Your task to perform on an android device: turn off location Image 0: 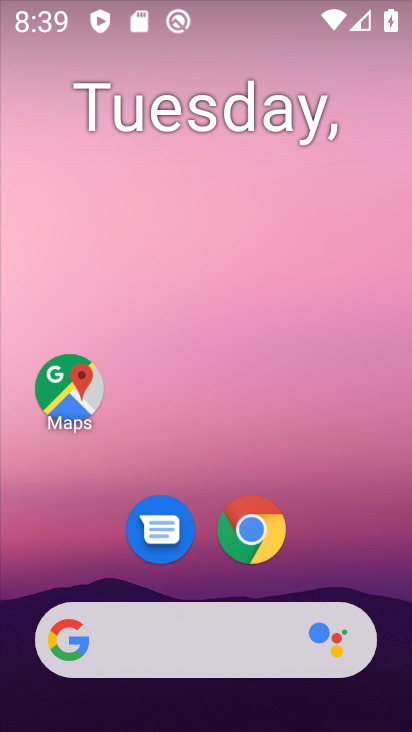
Step 0: drag from (371, 572) to (300, 86)
Your task to perform on an android device: turn off location Image 1: 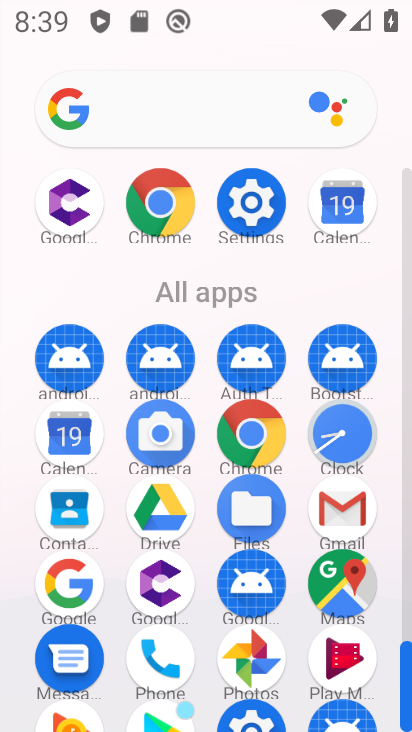
Step 1: drag from (391, 627) to (401, 375)
Your task to perform on an android device: turn off location Image 2: 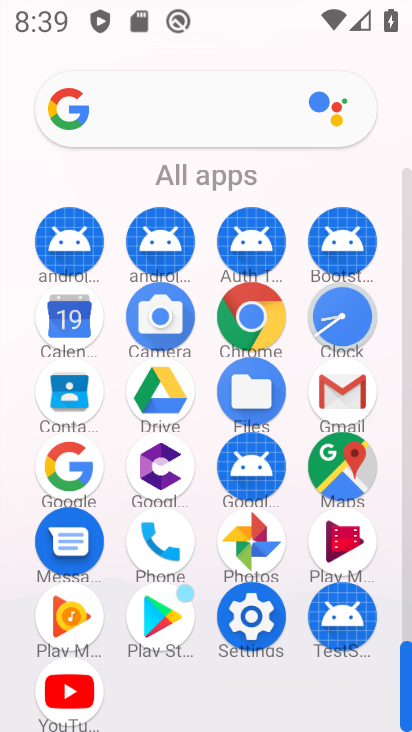
Step 2: click (248, 615)
Your task to perform on an android device: turn off location Image 3: 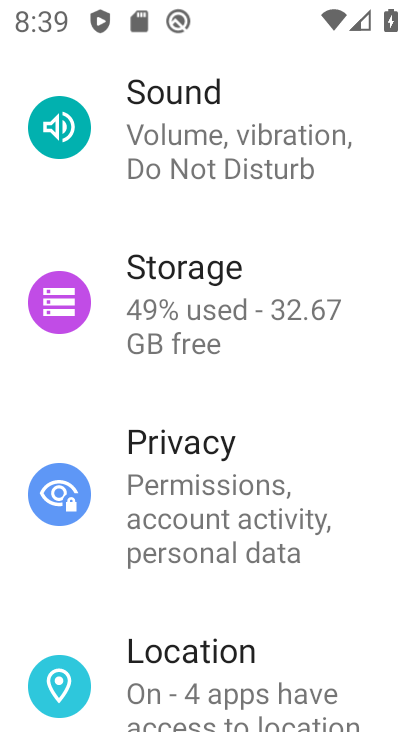
Step 3: drag from (349, 664) to (351, 348)
Your task to perform on an android device: turn off location Image 4: 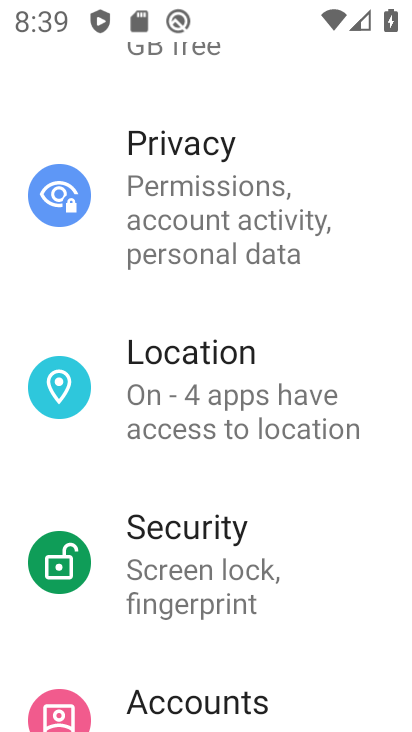
Step 4: click (201, 401)
Your task to perform on an android device: turn off location Image 5: 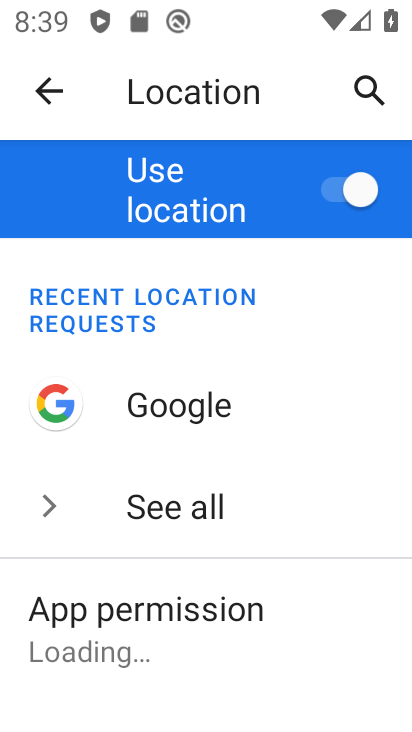
Step 5: click (326, 189)
Your task to perform on an android device: turn off location Image 6: 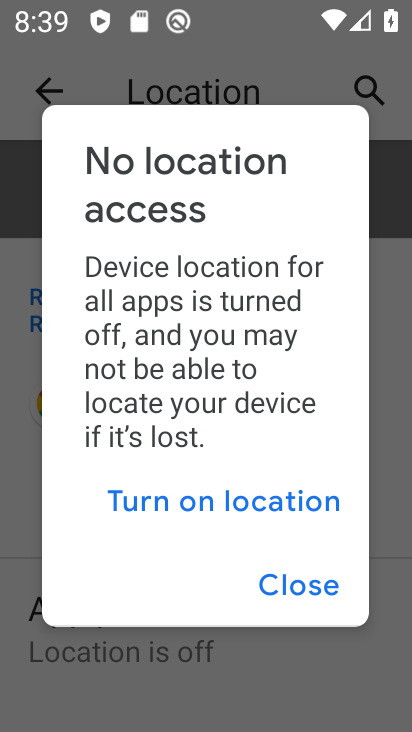
Step 6: click (269, 594)
Your task to perform on an android device: turn off location Image 7: 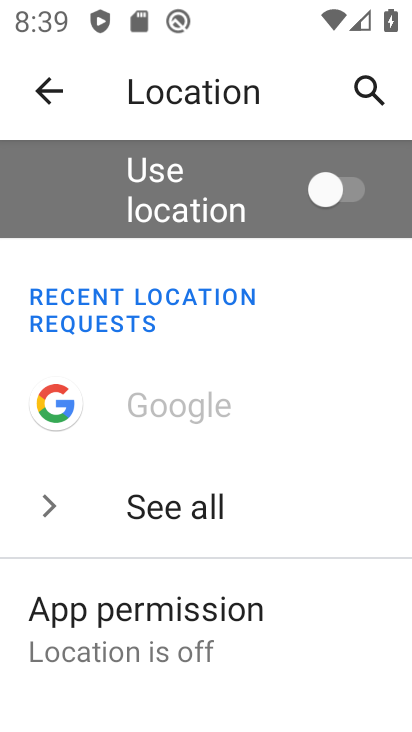
Step 7: task complete